Your task to perform on an android device: change timer sound Image 0: 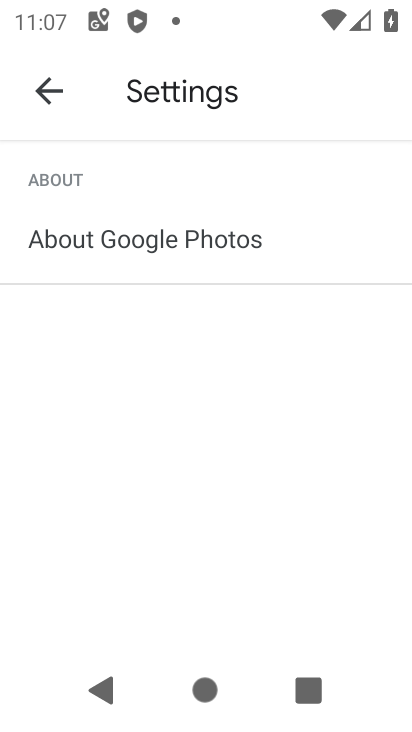
Step 0: press home button
Your task to perform on an android device: change timer sound Image 1: 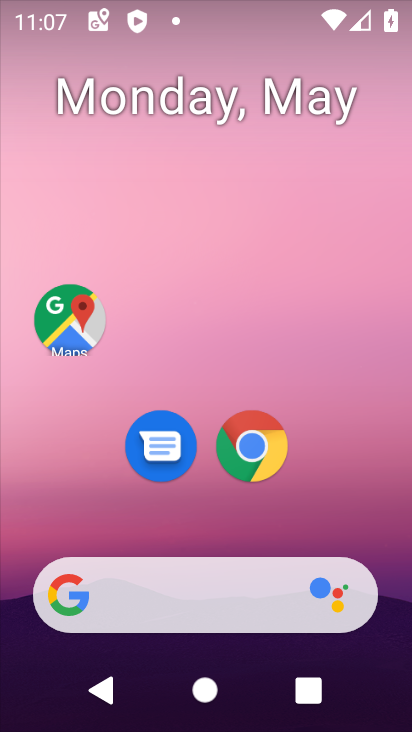
Step 1: drag from (393, 496) to (290, 27)
Your task to perform on an android device: change timer sound Image 2: 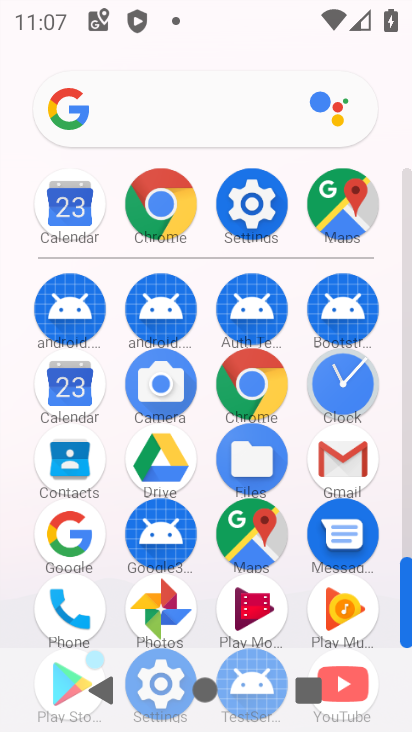
Step 2: click (349, 380)
Your task to perform on an android device: change timer sound Image 3: 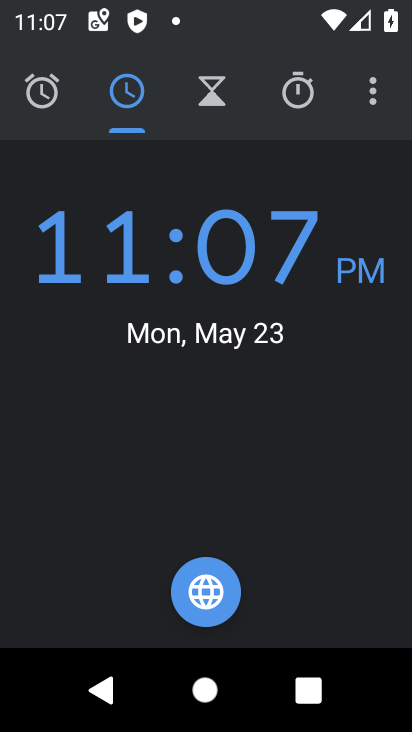
Step 3: click (381, 76)
Your task to perform on an android device: change timer sound Image 4: 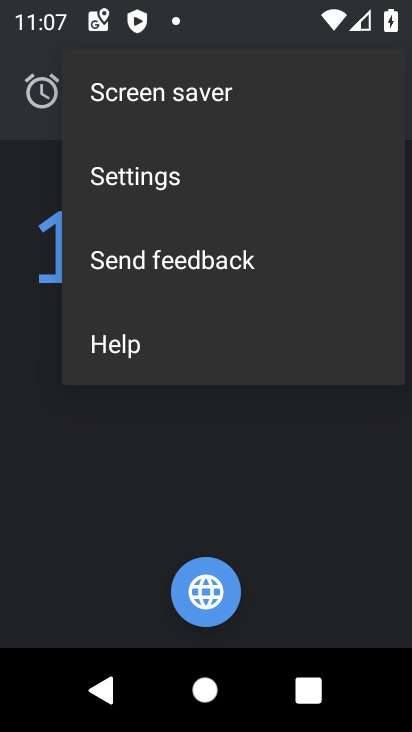
Step 4: click (181, 192)
Your task to perform on an android device: change timer sound Image 5: 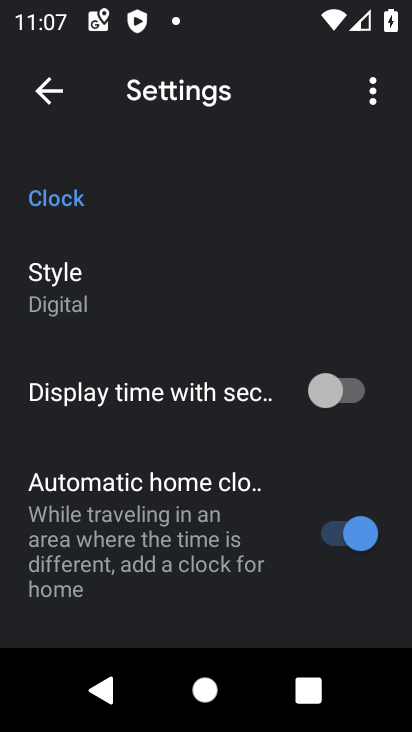
Step 5: drag from (99, 519) to (69, 162)
Your task to perform on an android device: change timer sound Image 6: 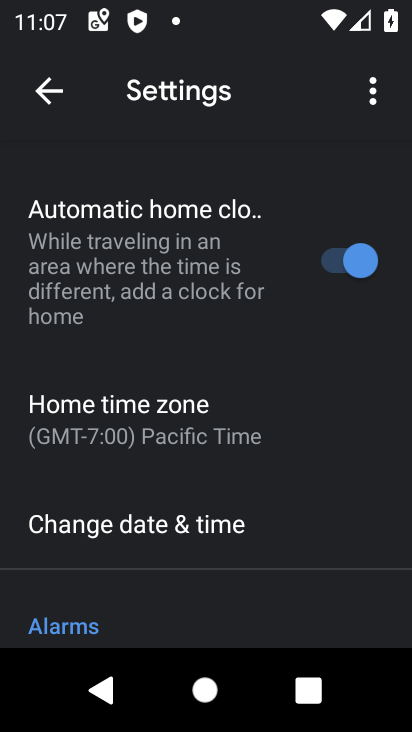
Step 6: drag from (178, 558) to (172, 135)
Your task to perform on an android device: change timer sound Image 7: 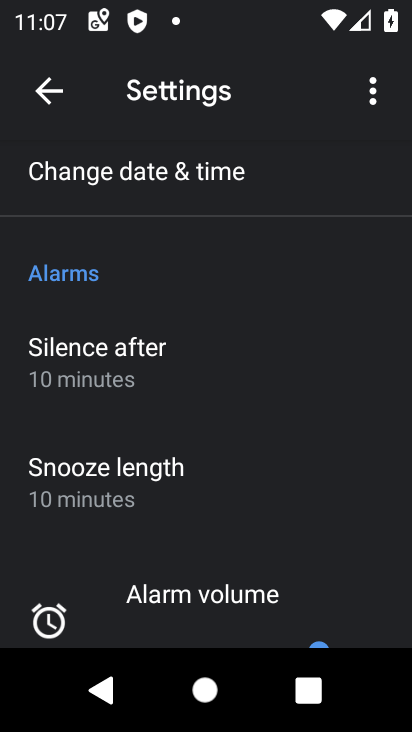
Step 7: drag from (218, 559) to (208, 237)
Your task to perform on an android device: change timer sound Image 8: 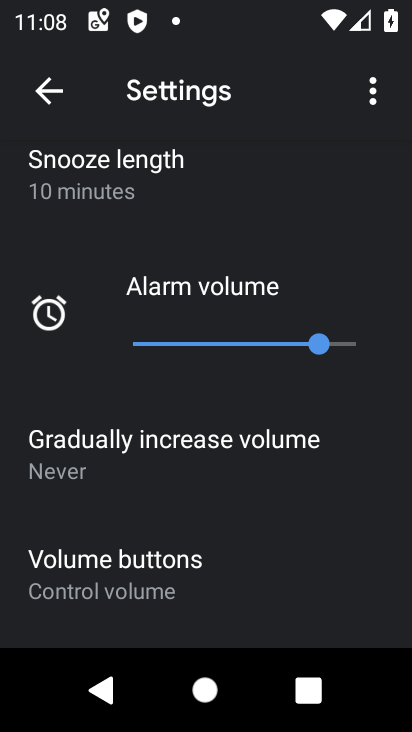
Step 8: drag from (183, 583) to (161, 204)
Your task to perform on an android device: change timer sound Image 9: 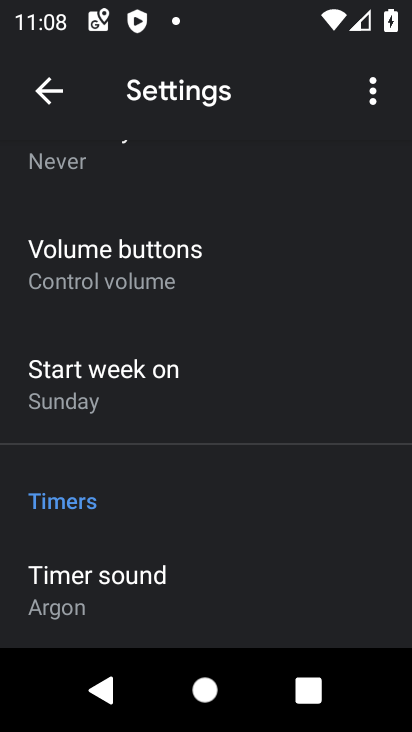
Step 9: drag from (152, 583) to (174, 121)
Your task to perform on an android device: change timer sound Image 10: 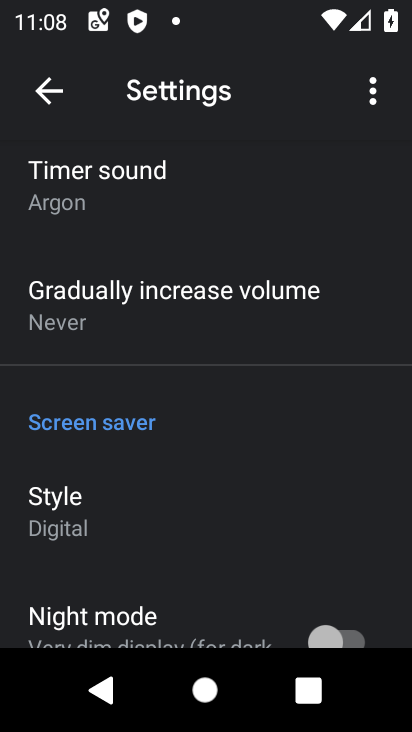
Step 10: drag from (206, 488) to (196, 16)
Your task to perform on an android device: change timer sound Image 11: 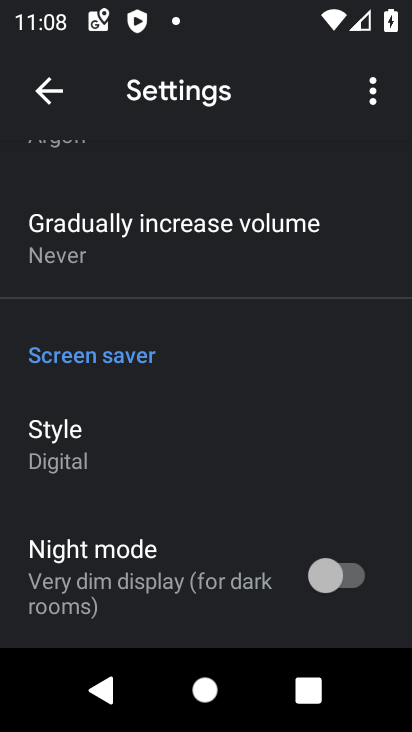
Step 11: drag from (184, 230) to (240, 578)
Your task to perform on an android device: change timer sound Image 12: 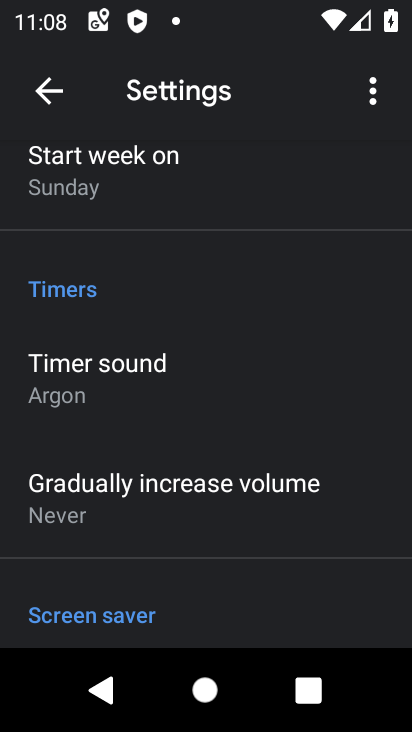
Step 12: drag from (284, 290) to (313, 613)
Your task to perform on an android device: change timer sound Image 13: 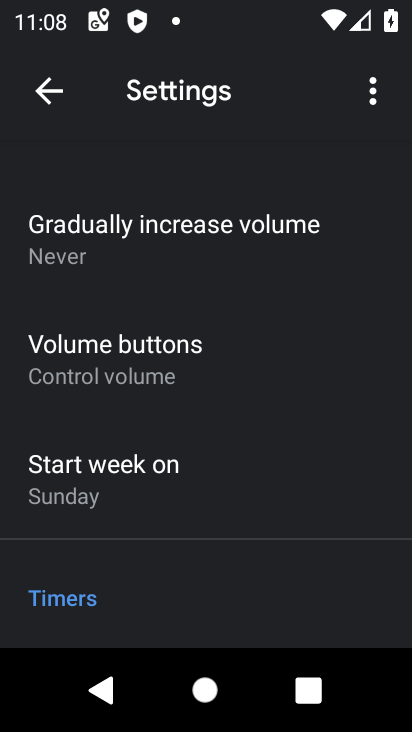
Step 13: drag from (193, 273) to (210, 515)
Your task to perform on an android device: change timer sound Image 14: 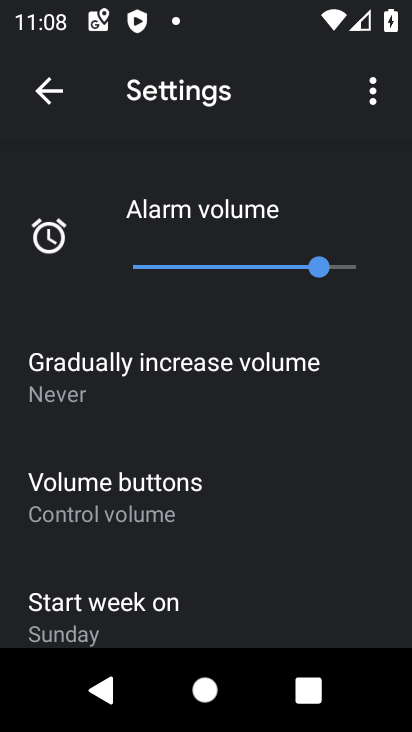
Step 14: drag from (262, 386) to (267, 603)
Your task to perform on an android device: change timer sound Image 15: 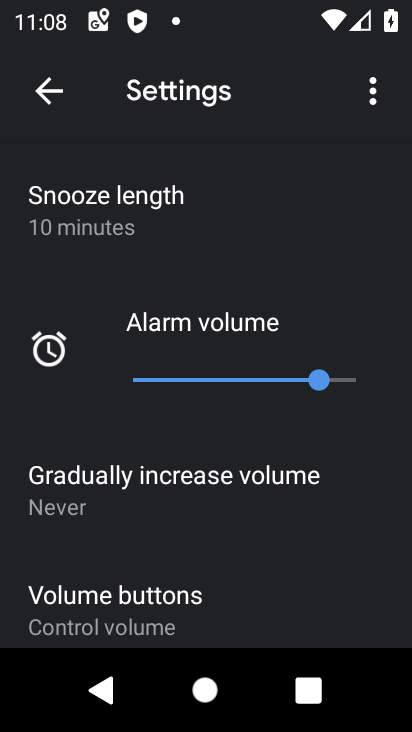
Step 15: drag from (267, 588) to (260, 298)
Your task to perform on an android device: change timer sound Image 16: 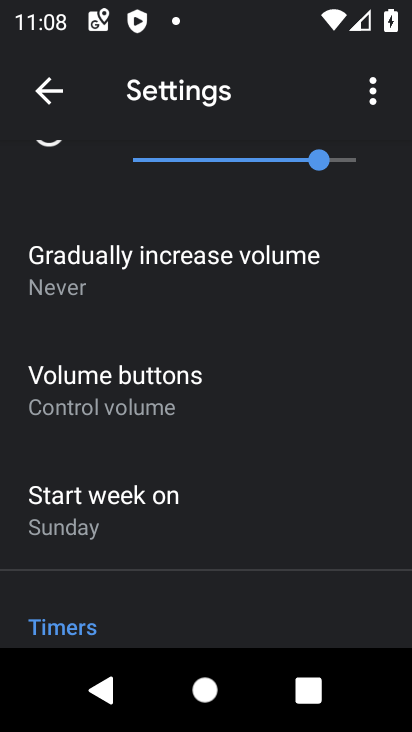
Step 16: drag from (218, 220) to (273, 575)
Your task to perform on an android device: change timer sound Image 17: 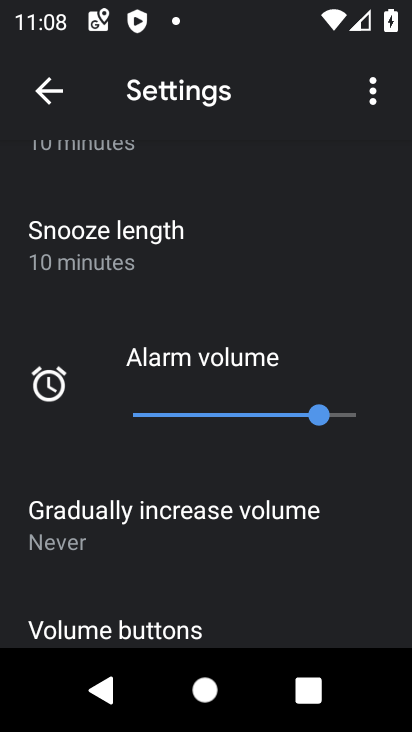
Step 17: drag from (168, 251) to (203, 578)
Your task to perform on an android device: change timer sound Image 18: 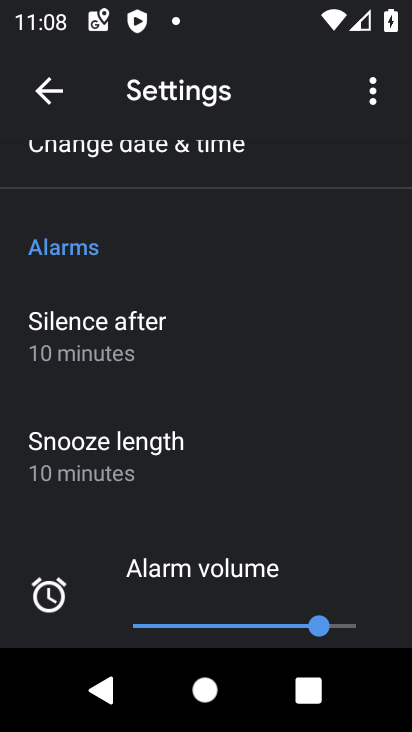
Step 18: drag from (169, 306) to (190, 636)
Your task to perform on an android device: change timer sound Image 19: 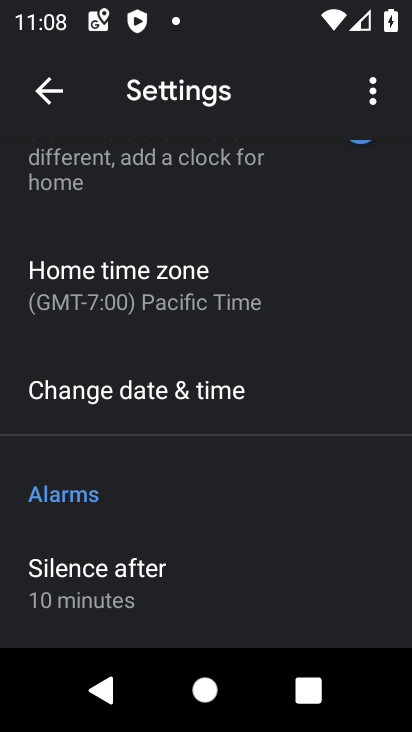
Step 19: drag from (205, 251) to (204, 508)
Your task to perform on an android device: change timer sound Image 20: 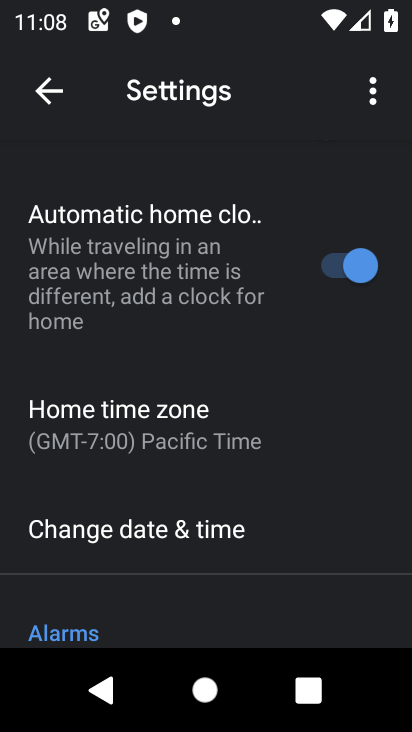
Step 20: drag from (216, 533) to (224, 136)
Your task to perform on an android device: change timer sound Image 21: 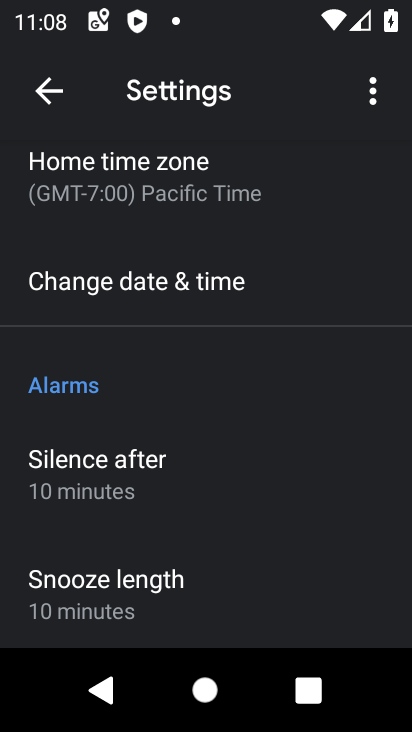
Step 21: drag from (272, 389) to (272, 13)
Your task to perform on an android device: change timer sound Image 22: 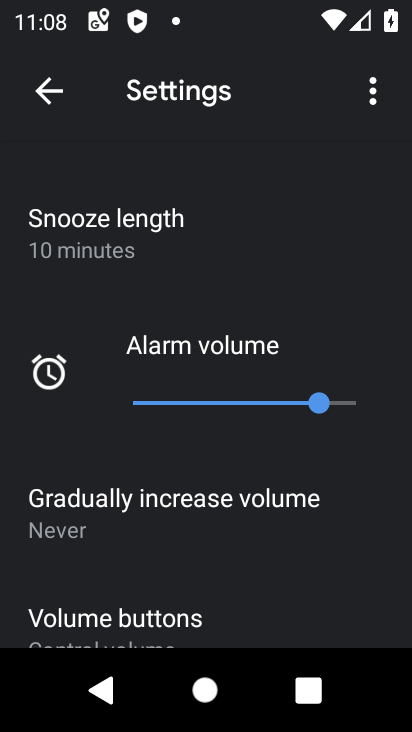
Step 22: drag from (316, 263) to (308, 32)
Your task to perform on an android device: change timer sound Image 23: 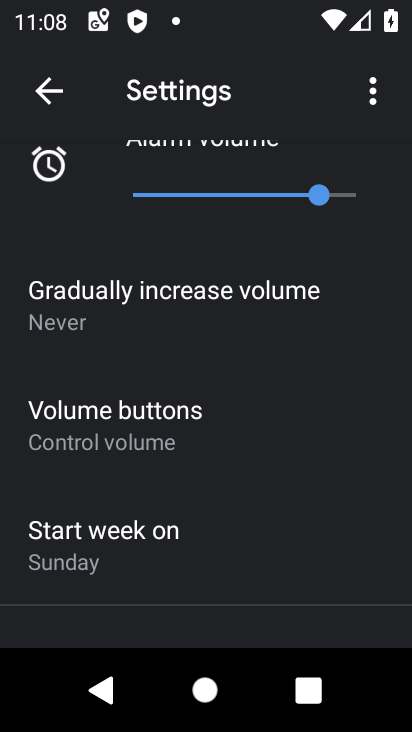
Step 23: drag from (236, 475) to (264, 114)
Your task to perform on an android device: change timer sound Image 24: 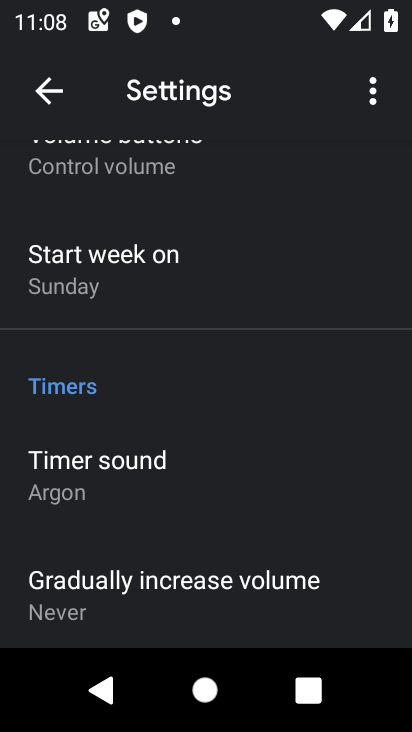
Step 24: click (141, 486)
Your task to perform on an android device: change timer sound Image 25: 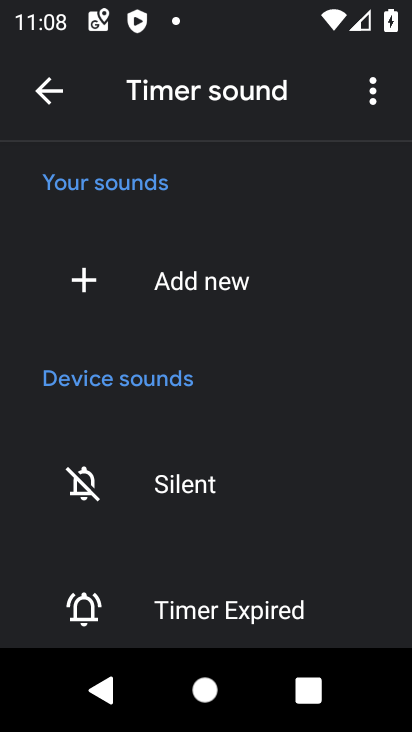
Step 25: task complete